Your task to perform on an android device: open app "Fetch Rewards" (install if not already installed) Image 0: 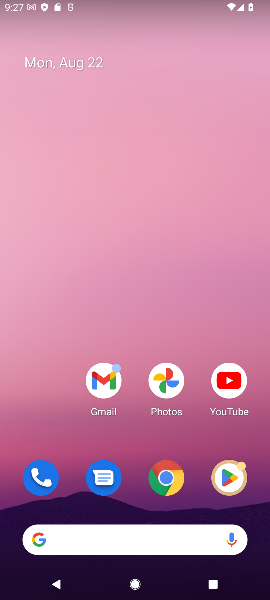
Step 0: click (221, 487)
Your task to perform on an android device: open app "Fetch Rewards" (install if not already installed) Image 1: 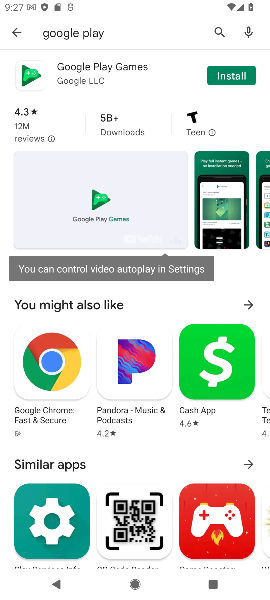
Step 1: click (214, 30)
Your task to perform on an android device: open app "Fetch Rewards" (install if not already installed) Image 2: 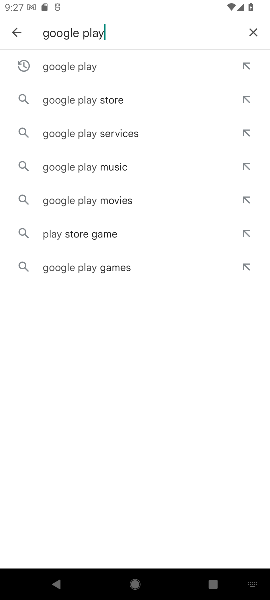
Step 2: click (254, 30)
Your task to perform on an android device: open app "Fetch Rewards" (install if not already installed) Image 3: 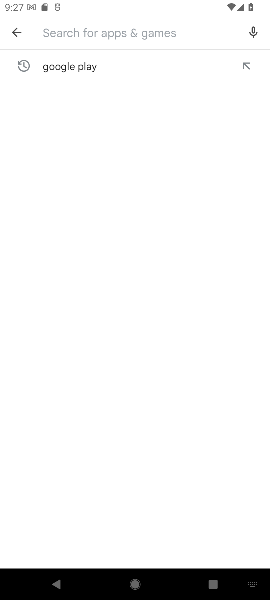
Step 3: type "fetch reward"
Your task to perform on an android device: open app "Fetch Rewards" (install if not already installed) Image 4: 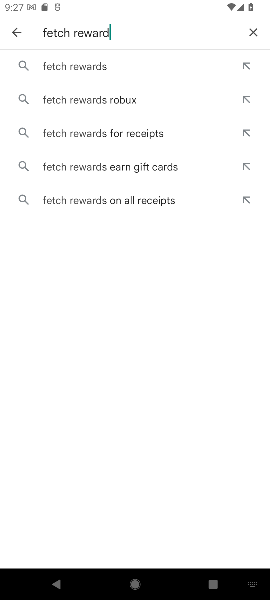
Step 4: click (134, 72)
Your task to perform on an android device: open app "Fetch Rewards" (install if not already installed) Image 5: 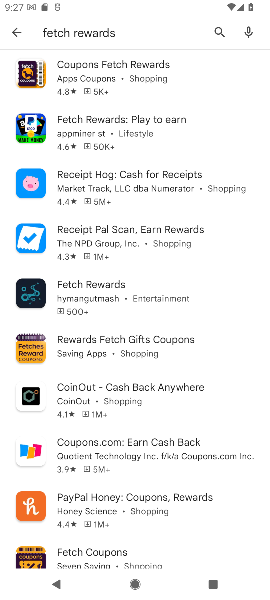
Step 5: click (137, 130)
Your task to perform on an android device: open app "Fetch Rewards" (install if not already installed) Image 6: 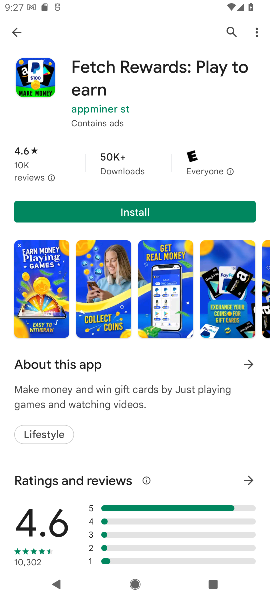
Step 6: task complete